Your task to perform on an android device: open the mobile data screen to see how much data has been used Image 0: 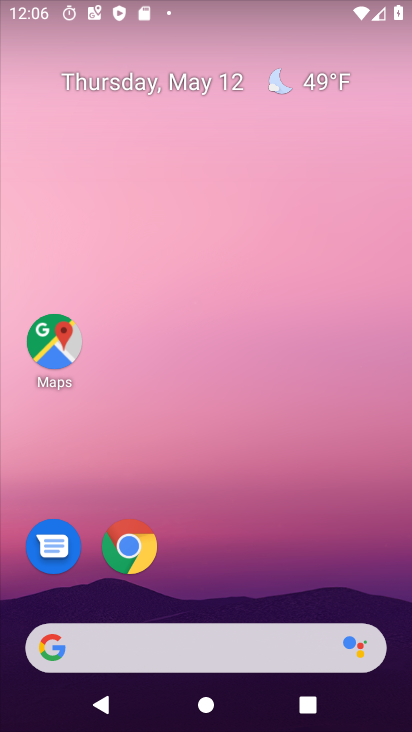
Step 0: drag from (205, 610) to (289, 141)
Your task to perform on an android device: open the mobile data screen to see how much data has been used Image 1: 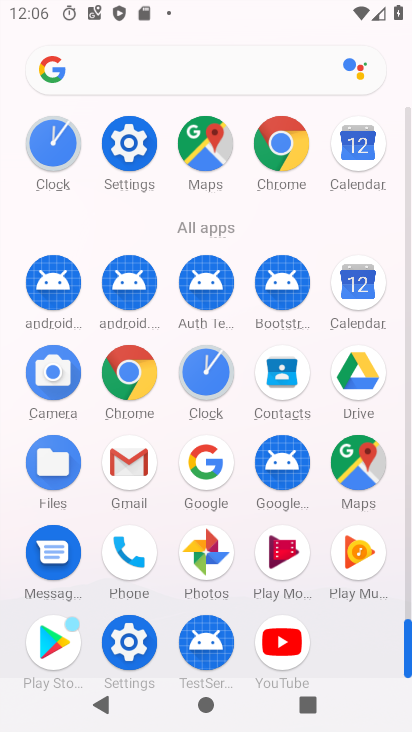
Step 1: click (124, 656)
Your task to perform on an android device: open the mobile data screen to see how much data has been used Image 2: 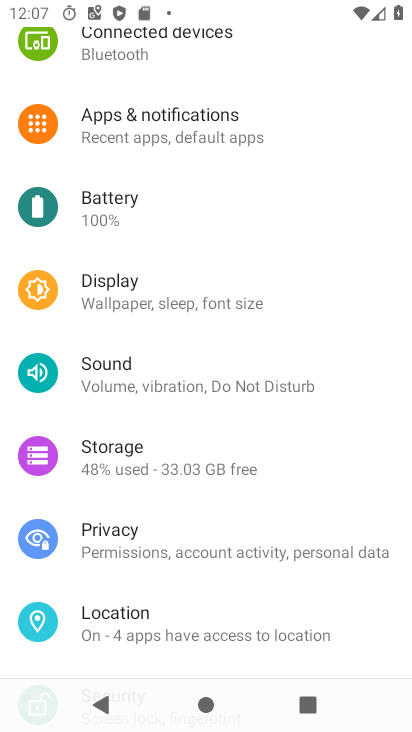
Step 2: drag from (220, 99) to (218, 544)
Your task to perform on an android device: open the mobile data screen to see how much data has been used Image 3: 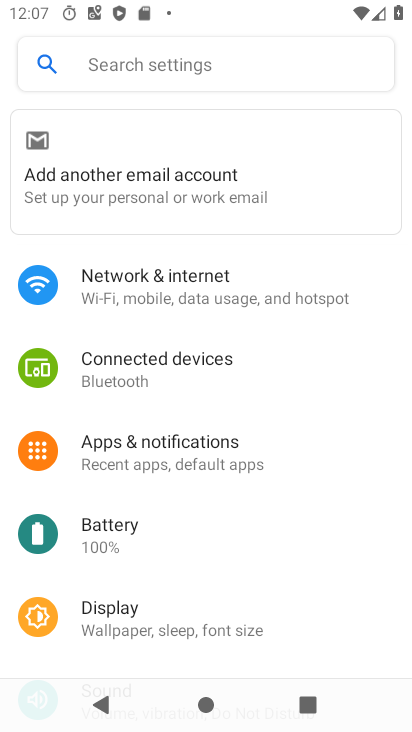
Step 3: click (203, 297)
Your task to perform on an android device: open the mobile data screen to see how much data has been used Image 4: 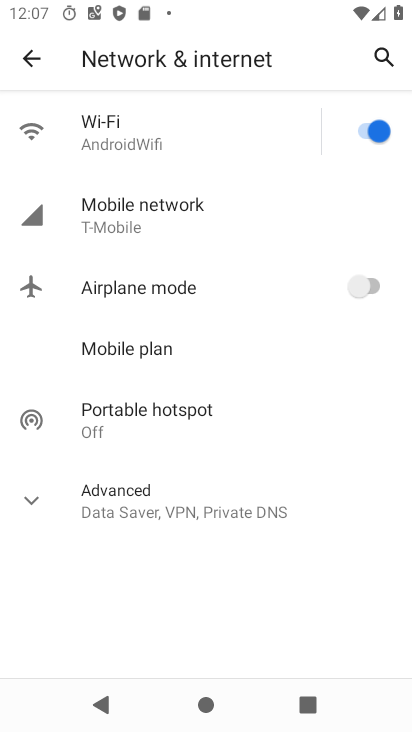
Step 4: click (208, 214)
Your task to perform on an android device: open the mobile data screen to see how much data has been used Image 5: 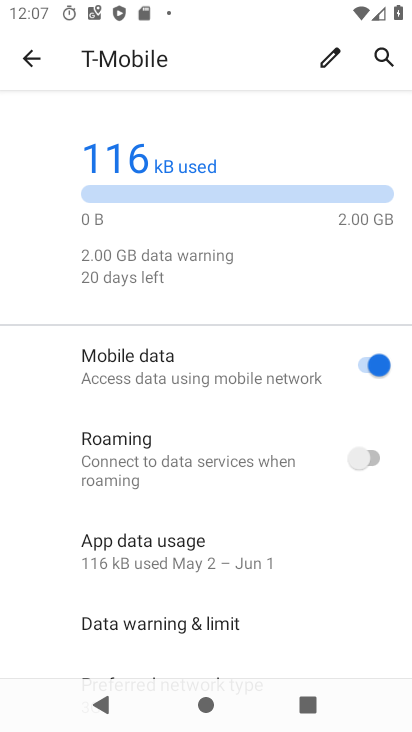
Step 5: task complete